Your task to perform on an android device: Check the news Image 0: 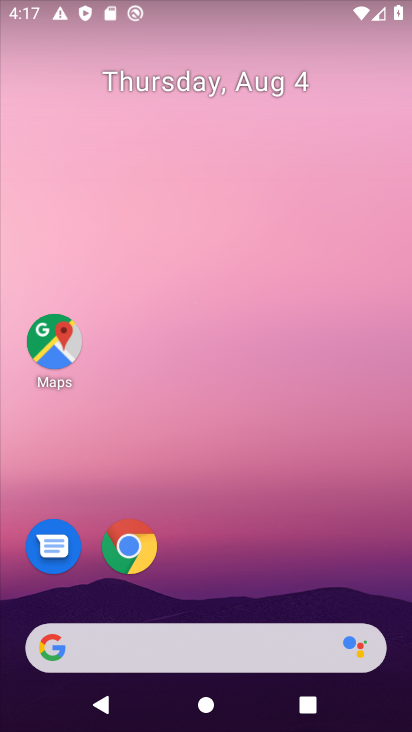
Step 0: drag from (225, 587) to (249, 31)
Your task to perform on an android device: Check the news Image 1: 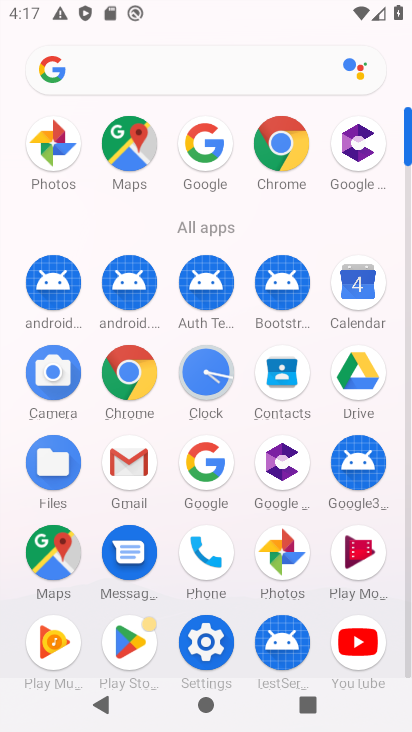
Step 1: click (205, 460)
Your task to perform on an android device: Check the news Image 2: 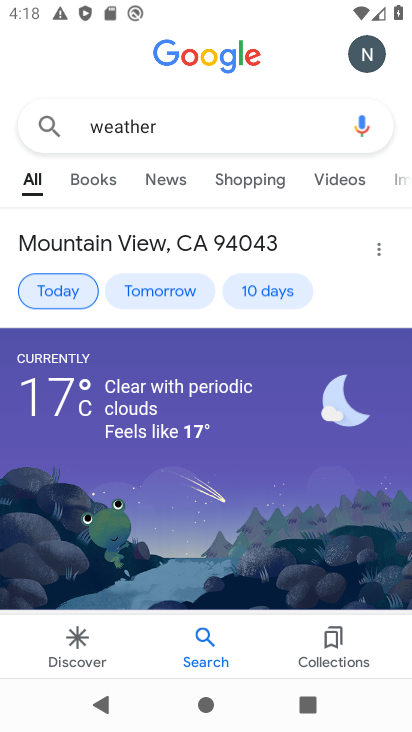
Step 2: click (183, 121)
Your task to perform on an android device: Check the news Image 3: 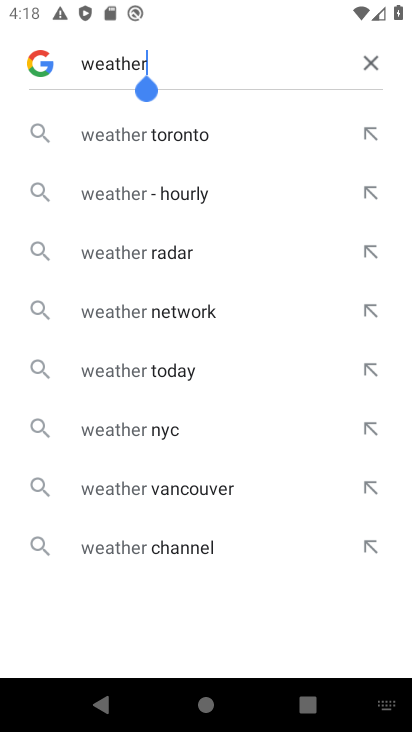
Step 3: click (373, 66)
Your task to perform on an android device: Check the news Image 4: 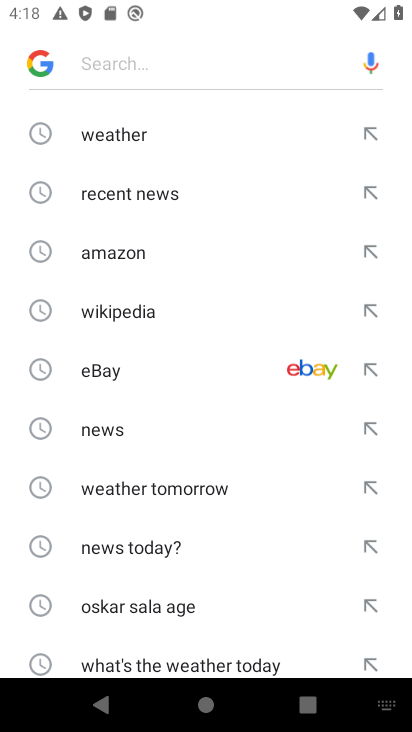
Step 4: click (112, 432)
Your task to perform on an android device: Check the news Image 5: 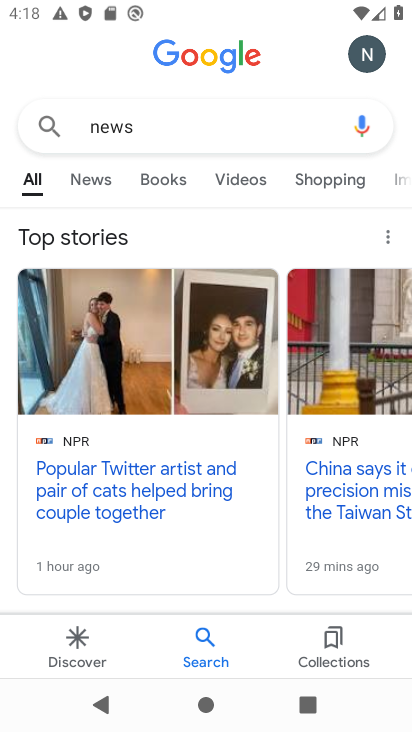
Step 5: task complete